Your task to perform on an android device: delete the emails in spam in the gmail app Image 0: 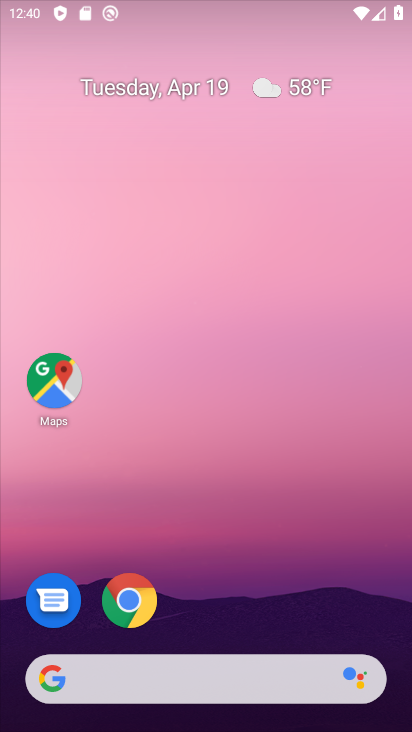
Step 0: drag from (370, 630) to (229, 142)
Your task to perform on an android device: delete the emails in spam in the gmail app Image 1: 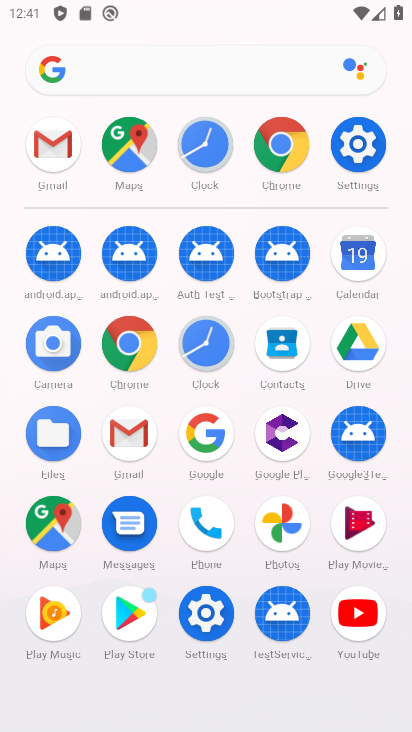
Step 1: click (137, 416)
Your task to perform on an android device: delete the emails in spam in the gmail app Image 2: 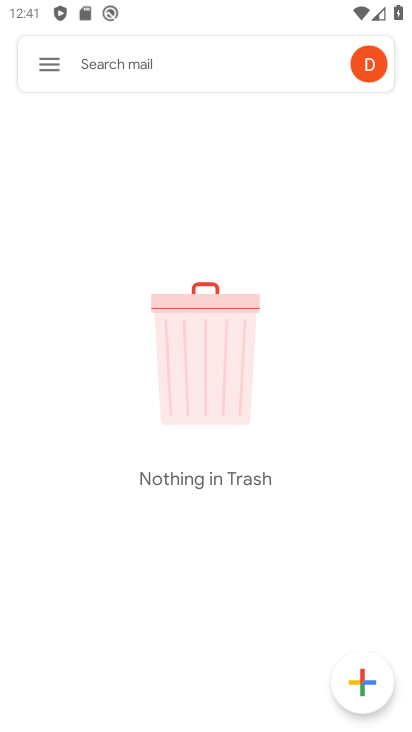
Step 2: click (54, 58)
Your task to perform on an android device: delete the emails in spam in the gmail app Image 3: 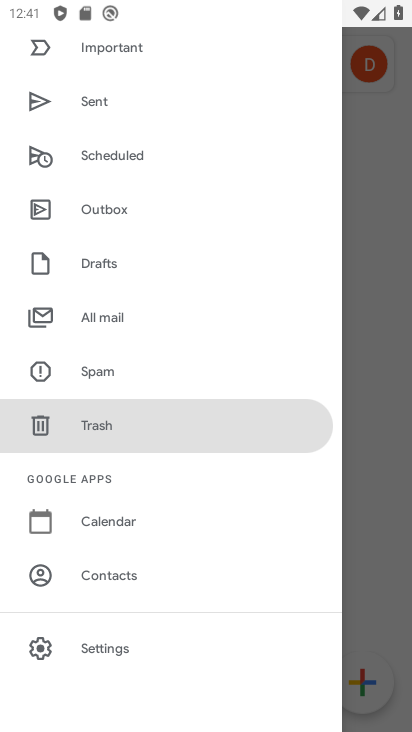
Step 3: click (157, 357)
Your task to perform on an android device: delete the emails in spam in the gmail app Image 4: 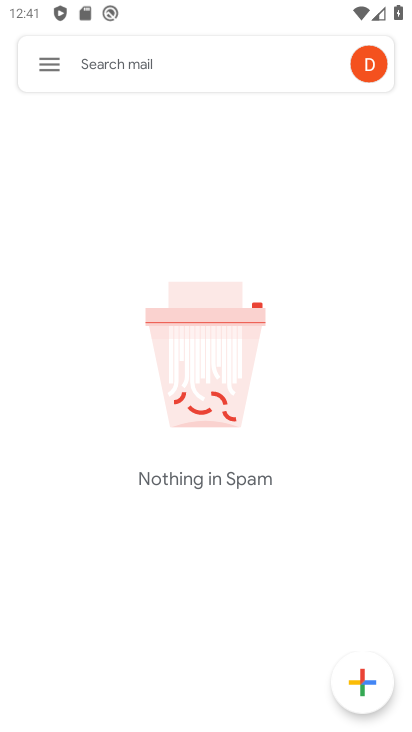
Step 4: task complete